Your task to perform on an android device: Search for logitech g pro on walmart.com, select the first entry, and add it to the cart. Image 0: 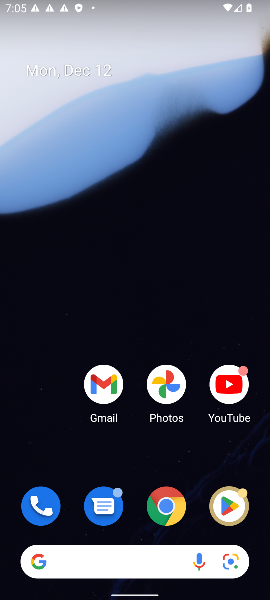
Step 0: click (146, 557)
Your task to perform on an android device: Search for logitech g pro on walmart.com, select the first entry, and add it to the cart. Image 1: 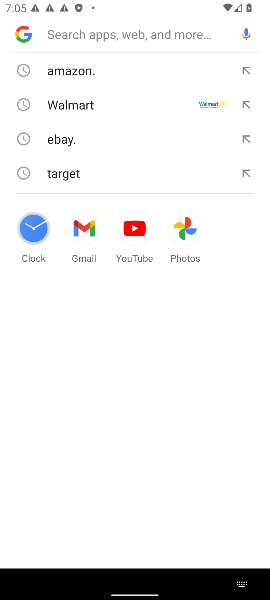
Step 1: click (106, 99)
Your task to perform on an android device: Search for logitech g pro on walmart.com, select the first entry, and add it to the cart. Image 2: 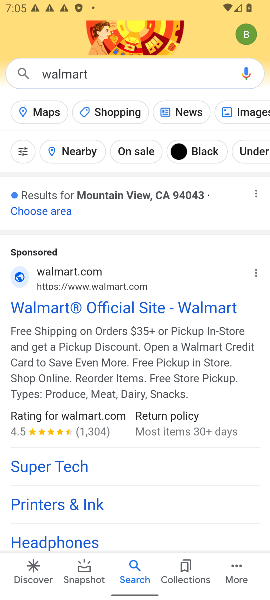
Step 2: click (131, 308)
Your task to perform on an android device: Search for logitech g pro on walmart.com, select the first entry, and add it to the cart. Image 3: 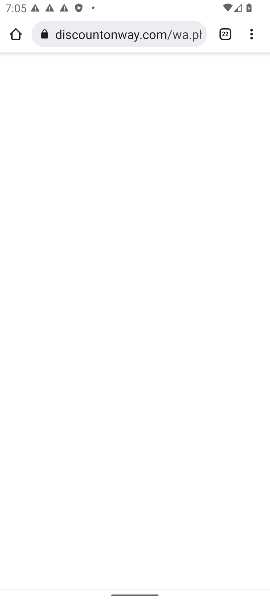
Step 3: click (131, 308)
Your task to perform on an android device: Search for logitech g pro on walmart.com, select the first entry, and add it to the cart. Image 4: 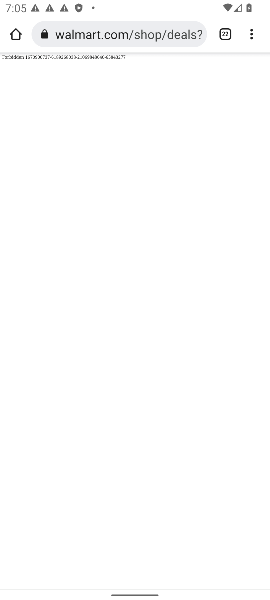
Step 4: click (131, 43)
Your task to perform on an android device: Search for logitech g pro on walmart.com, select the first entry, and add it to the cart. Image 5: 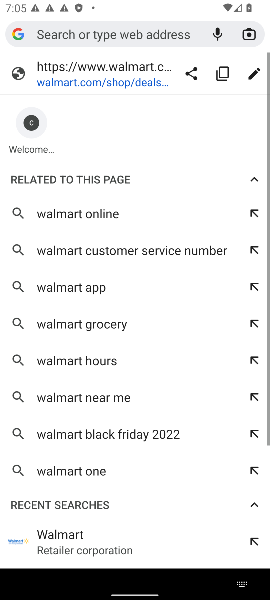
Step 5: click (131, 75)
Your task to perform on an android device: Search for logitech g pro on walmart.com, select the first entry, and add it to the cart. Image 6: 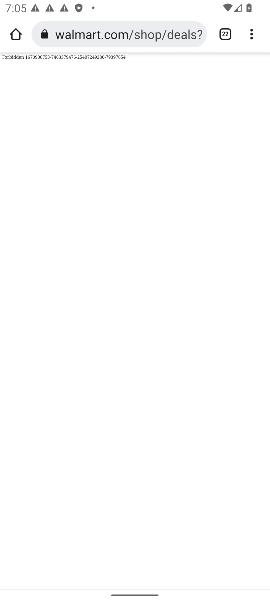
Step 6: task complete